Your task to perform on an android device: Open CNN.com Image 0: 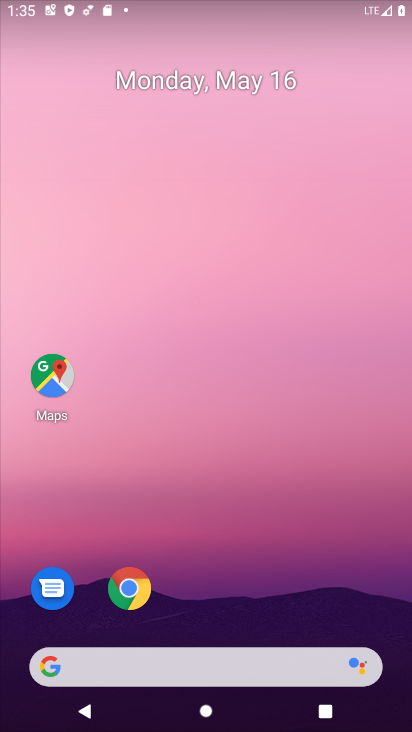
Step 0: click (128, 589)
Your task to perform on an android device: Open CNN.com Image 1: 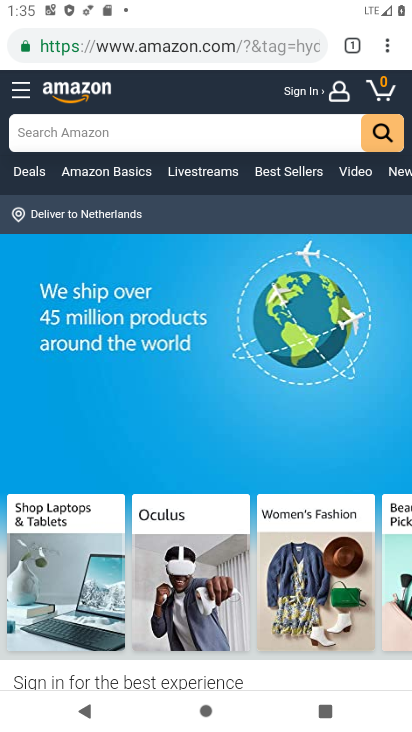
Step 1: click (299, 39)
Your task to perform on an android device: Open CNN.com Image 2: 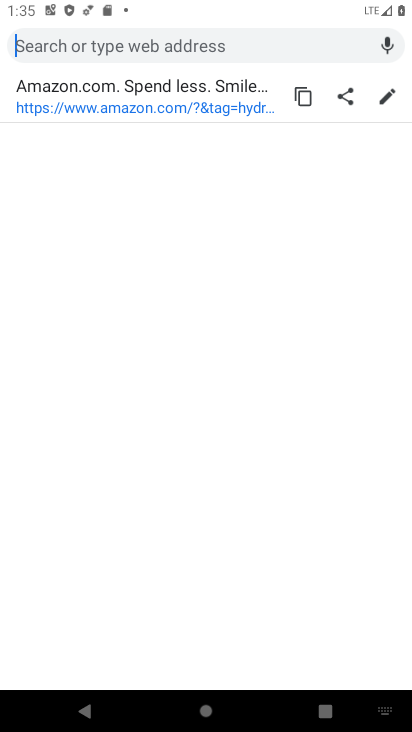
Step 2: type "CNN.com"
Your task to perform on an android device: Open CNN.com Image 3: 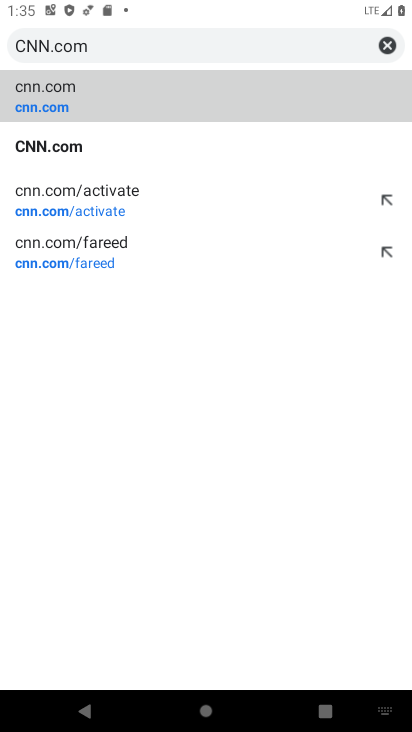
Step 3: click (65, 141)
Your task to perform on an android device: Open CNN.com Image 4: 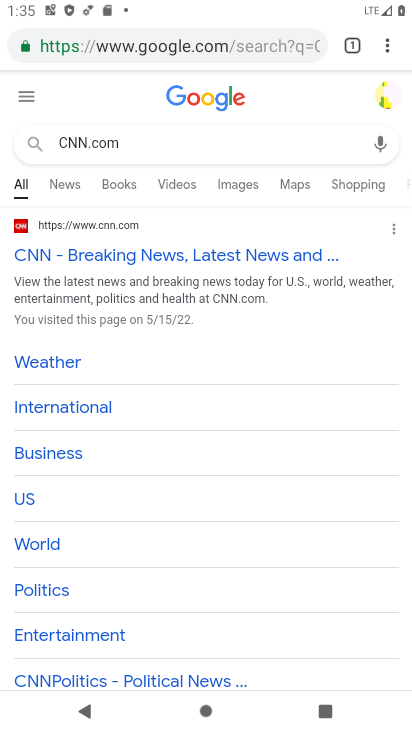
Step 4: click (108, 253)
Your task to perform on an android device: Open CNN.com Image 5: 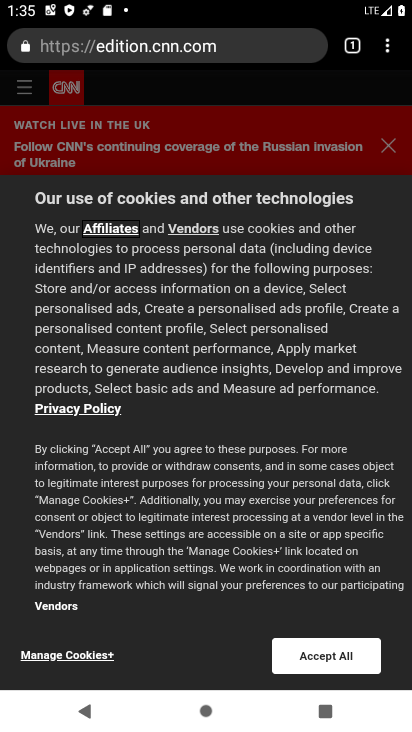
Step 5: task complete